Your task to perform on an android device: Open accessibility settings Image 0: 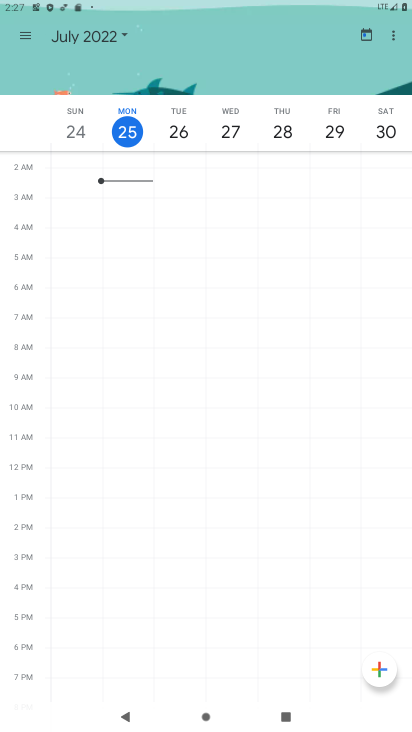
Step 0: press back button
Your task to perform on an android device: Open accessibility settings Image 1: 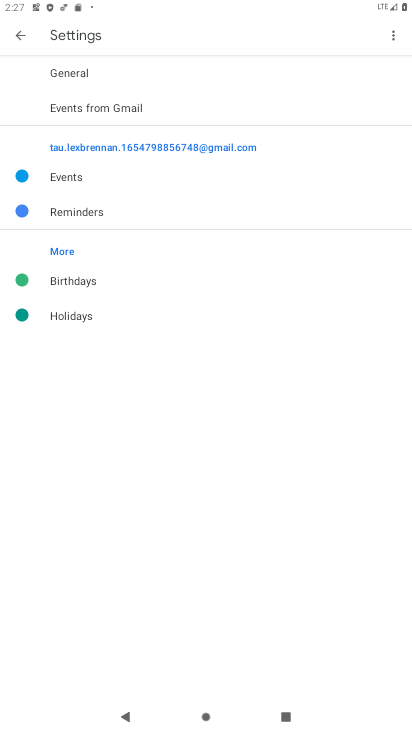
Step 1: press back button
Your task to perform on an android device: Open accessibility settings Image 2: 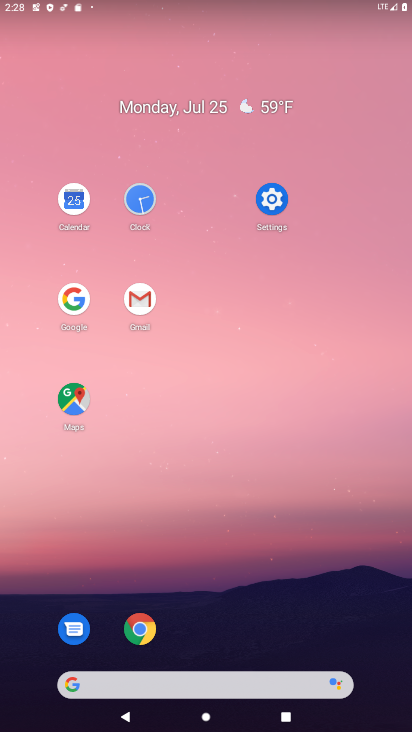
Step 2: click (279, 200)
Your task to perform on an android device: Open accessibility settings Image 3: 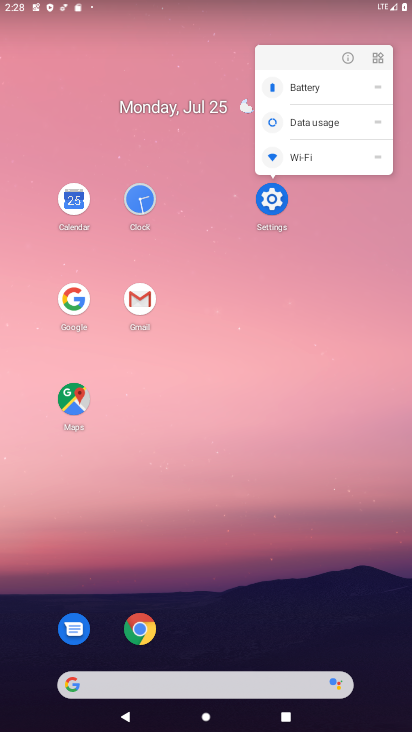
Step 3: click (274, 195)
Your task to perform on an android device: Open accessibility settings Image 4: 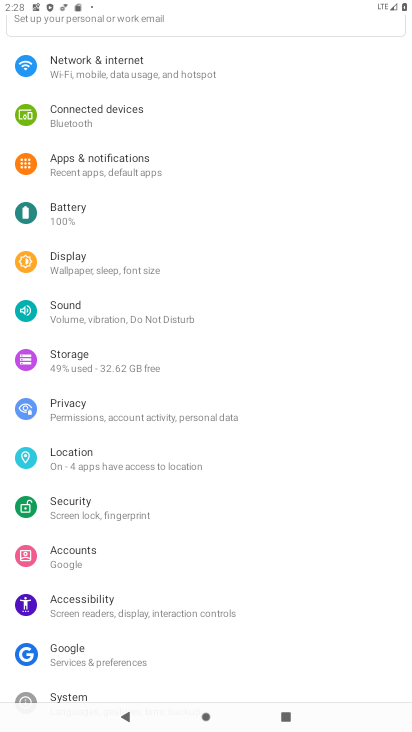
Step 4: click (211, 609)
Your task to perform on an android device: Open accessibility settings Image 5: 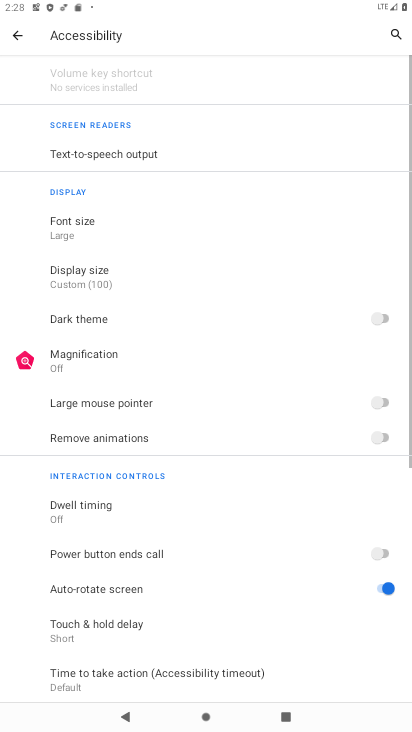
Step 5: task complete